Your task to perform on an android device: toggle notifications settings in the gmail app Image 0: 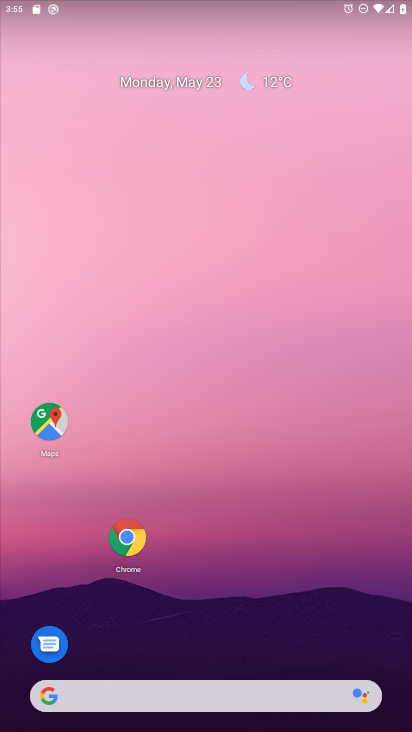
Step 0: drag from (230, 572) to (185, 129)
Your task to perform on an android device: toggle notifications settings in the gmail app Image 1: 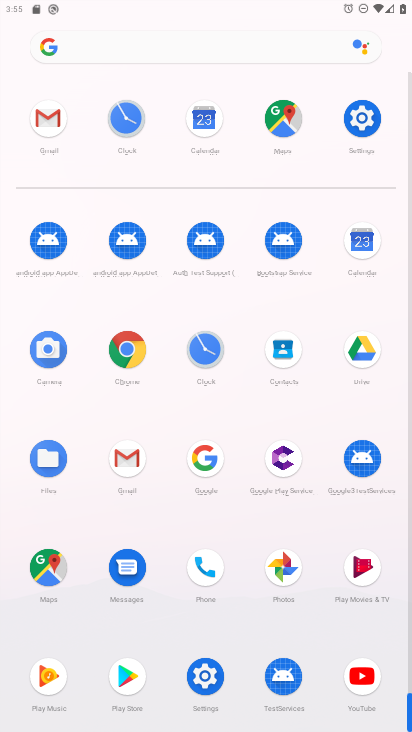
Step 1: click (37, 115)
Your task to perform on an android device: toggle notifications settings in the gmail app Image 2: 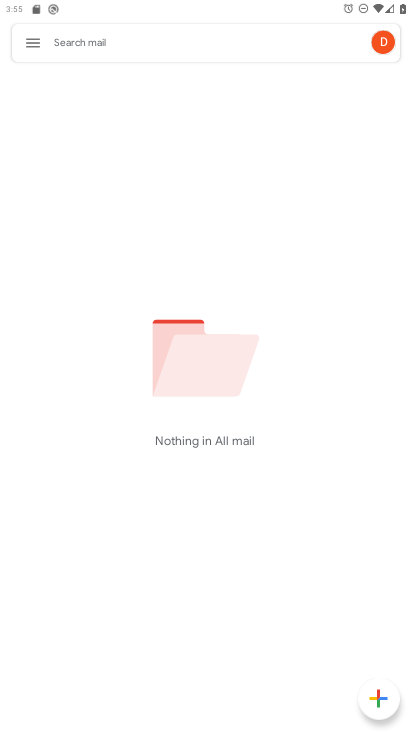
Step 2: click (31, 40)
Your task to perform on an android device: toggle notifications settings in the gmail app Image 3: 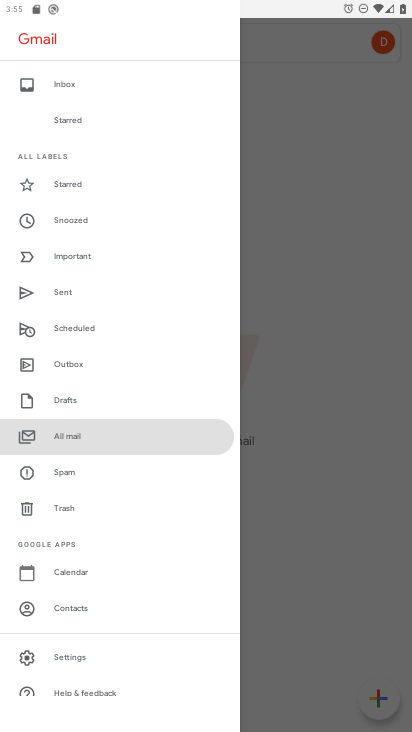
Step 3: drag from (101, 650) to (168, 333)
Your task to perform on an android device: toggle notifications settings in the gmail app Image 4: 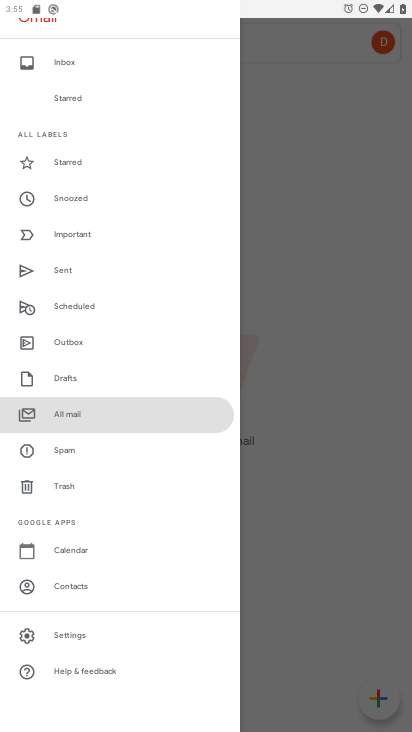
Step 4: click (79, 629)
Your task to perform on an android device: toggle notifications settings in the gmail app Image 5: 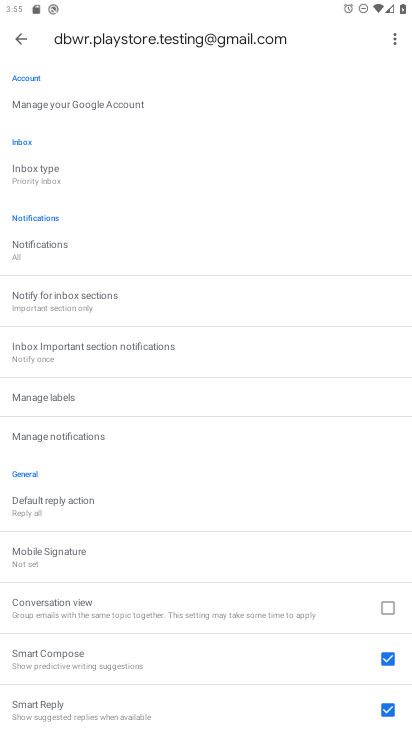
Step 5: drag from (166, 469) to (203, 156)
Your task to perform on an android device: toggle notifications settings in the gmail app Image 6: 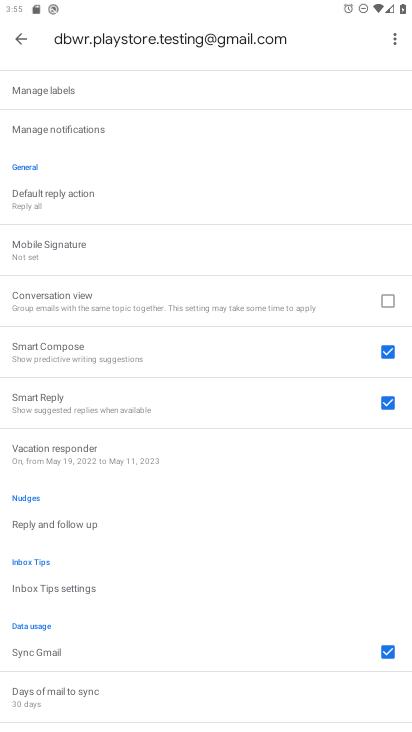
Step 6: drag from (150, 594) to (158, 212)
Your task to perform on an android device: toggle notifications settings in the gmail app Image 7: 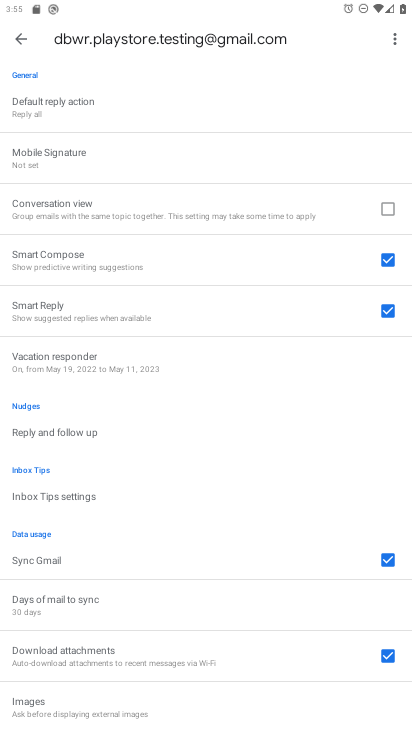
Step 7: drag from (129, 403) to (153, 644)
Your task to perform on an android device: toggle notifications settings in the gmail app Image 8: 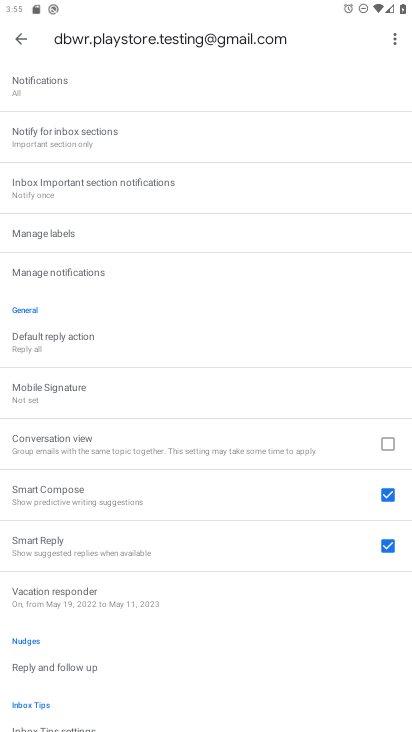
Step 8: drag from (155, 235) to (150, 580)
Your task to perform on an android device: toggle notifications settings in the gmail app Image 9: 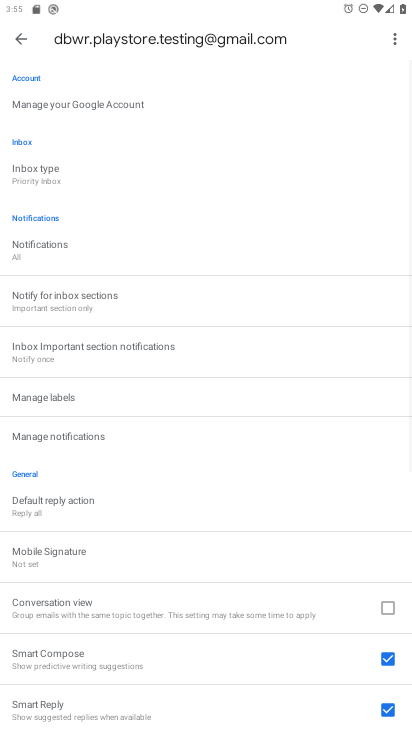
Step 9: drag from (170, 457) to (165, 504)
Your task to perform on an android device: toggle notifications settings in the gmail app Image 10: 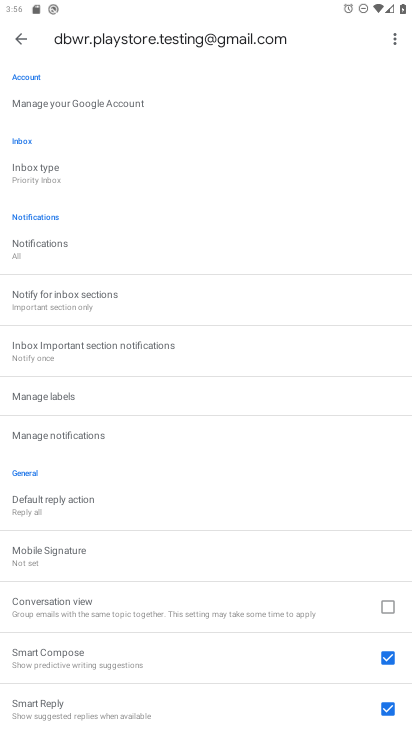
Step 10: click (100, 437)
Your task to perform on an android device: toggle notifications settings in the gmail app Image 11: 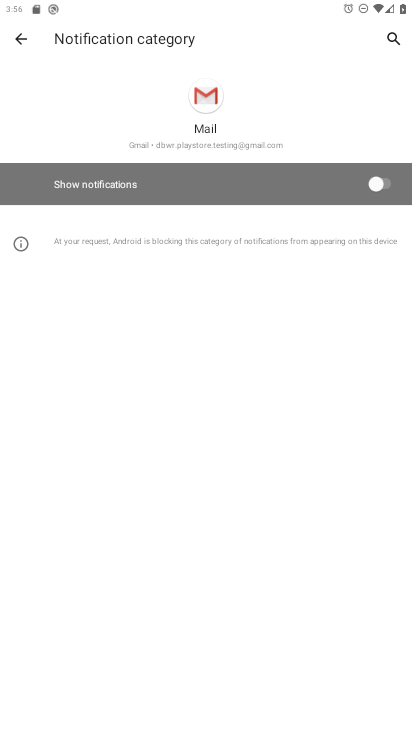
Step 11: click (355, 180)
Your task to perform on an android device: toggle notifications settings in the gmail app Image 12: 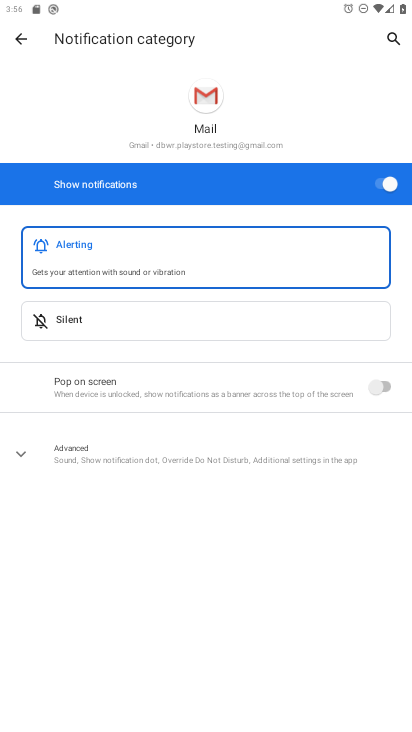
Step 12: task complete